Your task to perform on an android device: Open Youtube and go to the subscriptions tab Image 0: 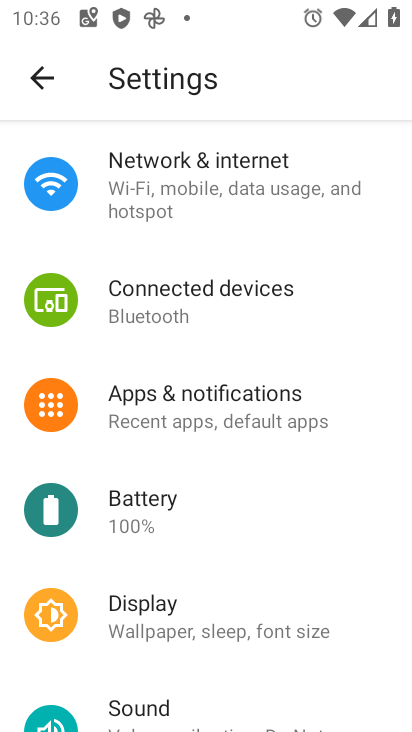
Step 0: press home button
Your task to perform on an android device: Open Youtube and go to the subscriptions tab Image 1: 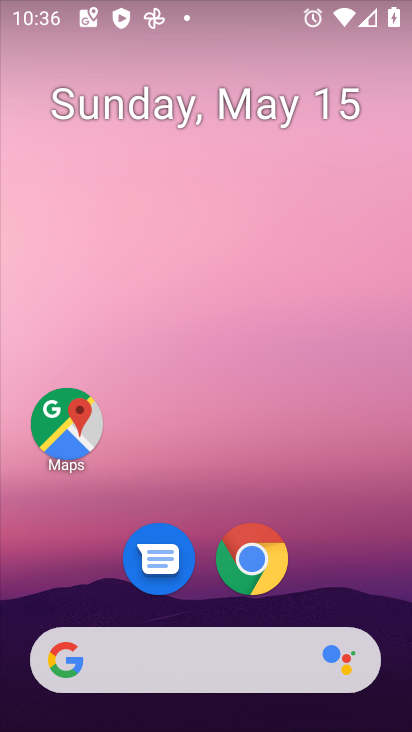
Step 1: drag from (339, 575) to (389, 7)
Your task to perform on an android device: Open Youtube and go to the subscriptions tab Image 2: 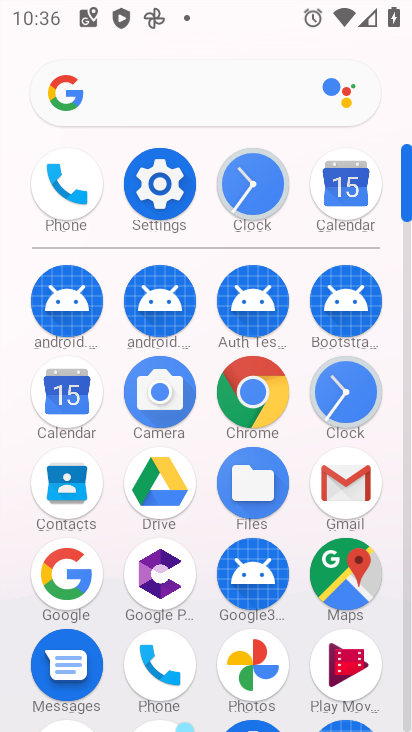
Step 2: click (406, 715)
Your task to perform on an android device: Open Youtube and go to the subscriptions tab Image 3: 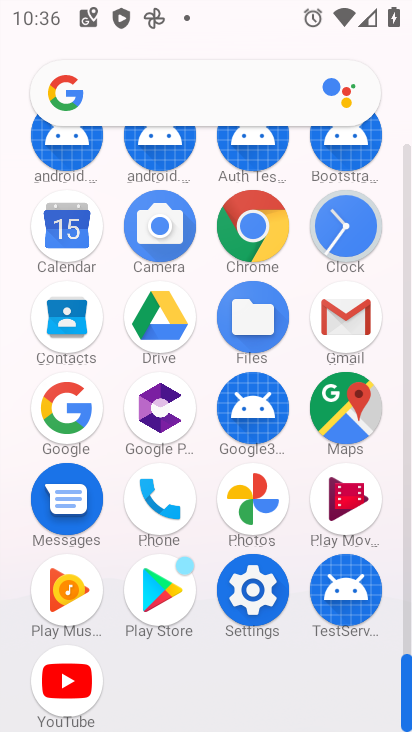
Step 3: click (87, 699)
Your task to perform on an android device: Open Youtube and go to the subscriptions tab Image 4: 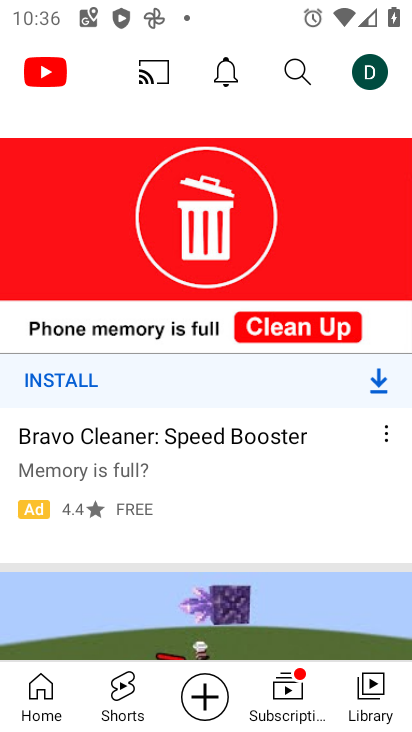
Step 4: click (293, 685)
Your task to perform on an android device: Open Youtube and go to the subscriptions tab Image 5: 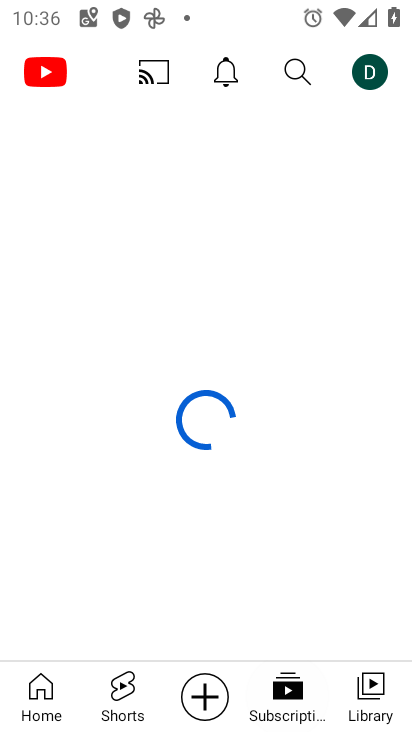
Step 5: task complete